Your task to perform on an android device: turn off airplane mode Image 0: 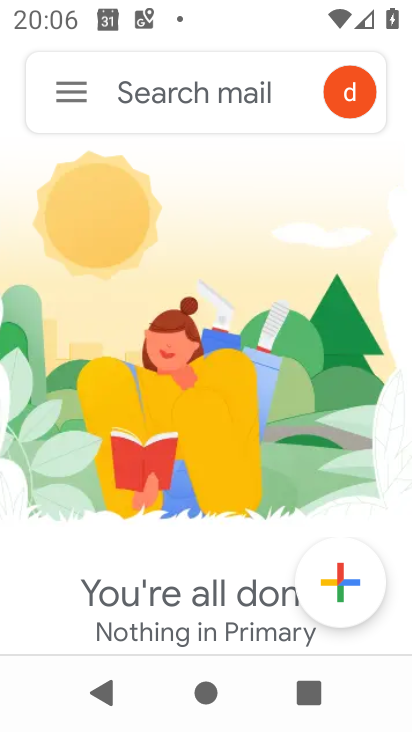
Step 0: press home button
Your task to perform on an android device: turn off airplane mode Image 1: 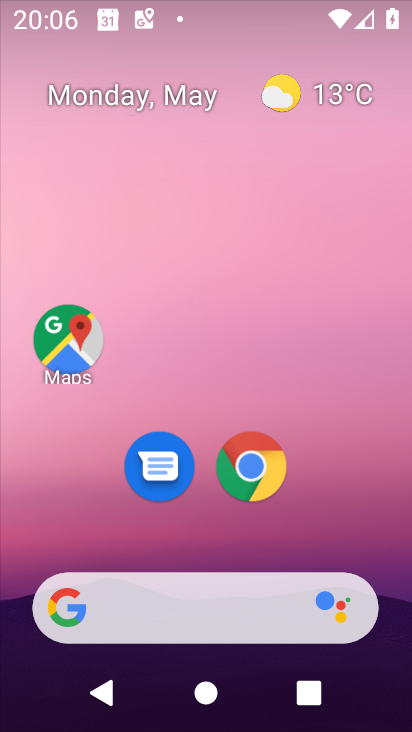
Step 1: drag from (291, 561) to (309, 256)
Your task to perform on an android device: turn off airplane mode Image 2: 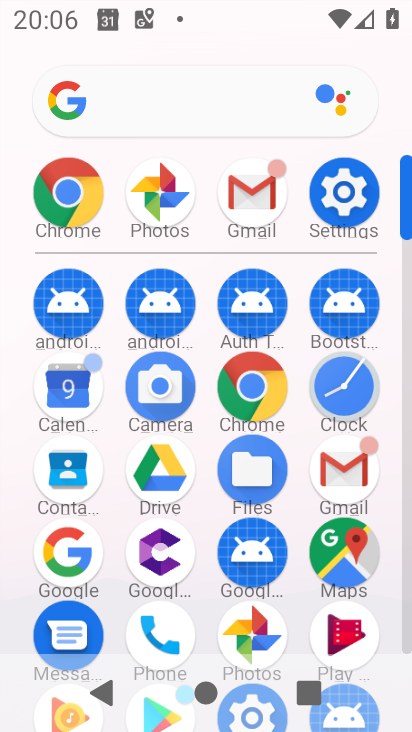
Step 2: click (341, 173)
Your task to perform on an android device: turn off airplane mode Image 3: 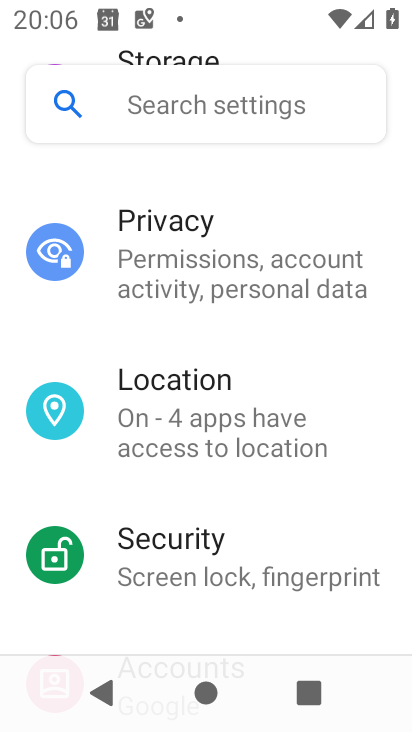
Step 3: drag from (243, 296) to (248, 620)
Your task to perform on an android device: turn off airplane mode Image 4: 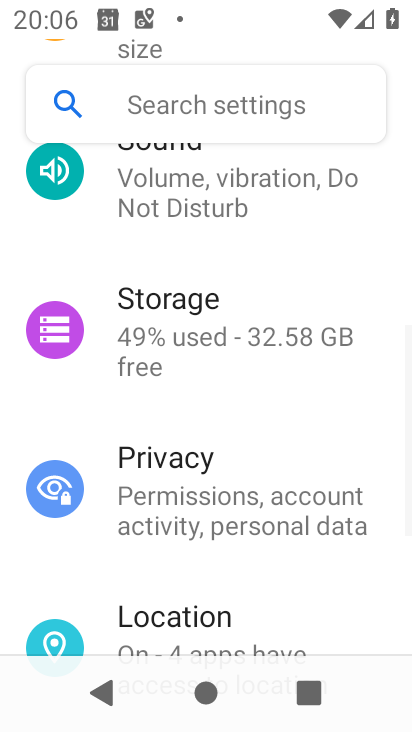
Step 4: drag from (235, 284) to (228, 616)
Your task to perform on an android device: turn off airplane mode Image 5: 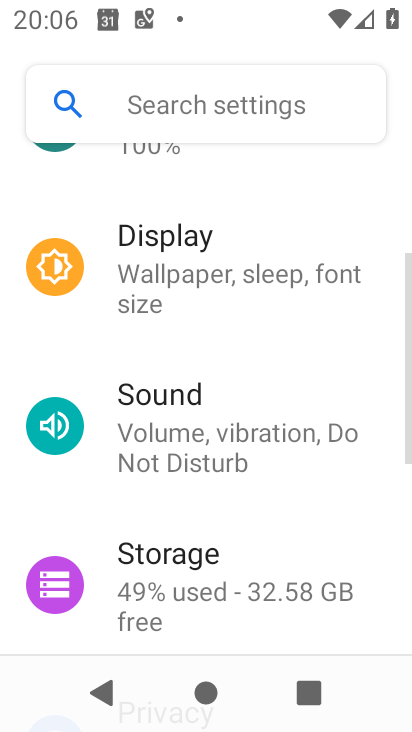
Step 5: drag from (222, 255) to (197, 610)
Your task to perform on an android device: turn off airplane mode Image 6: 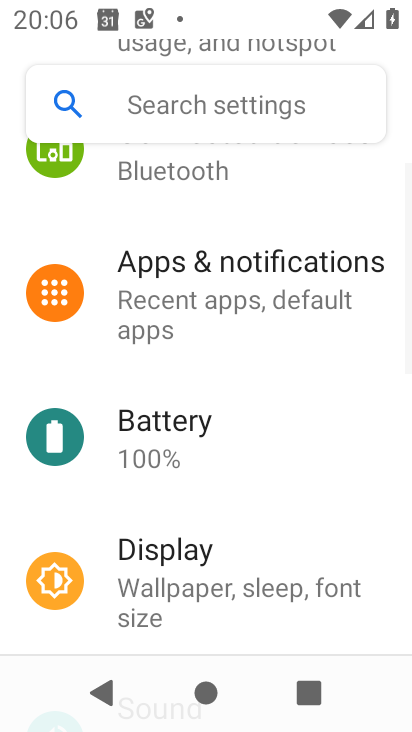
Step 6: drag from (233, 227) to (242, 626)
Your task to perform on an android device: turn off airplane mode Image 7: 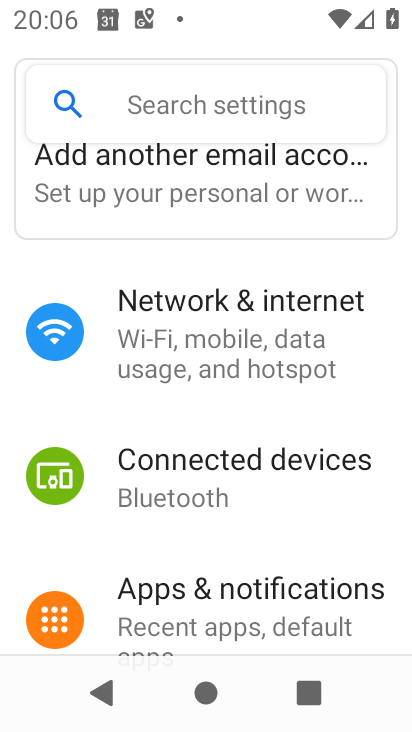
Step 7: click (243, 331)
Your task to perform on an android device: turn off airplane mode Image 8: 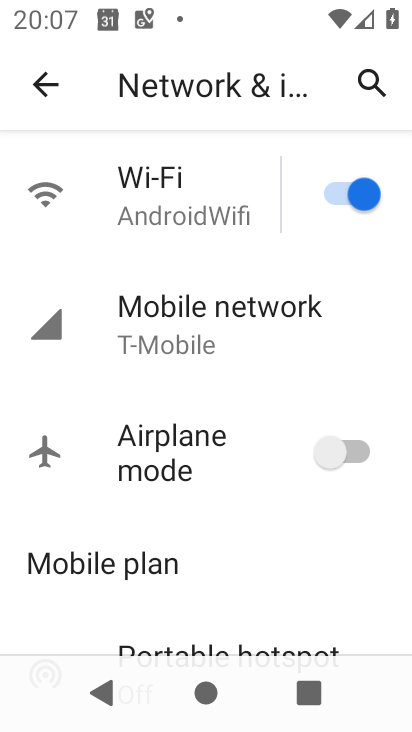
Step 8: task complete